Your task to perform on an android device: open app "Roku - Official Remote Control" (install if not already installed) Image 0: 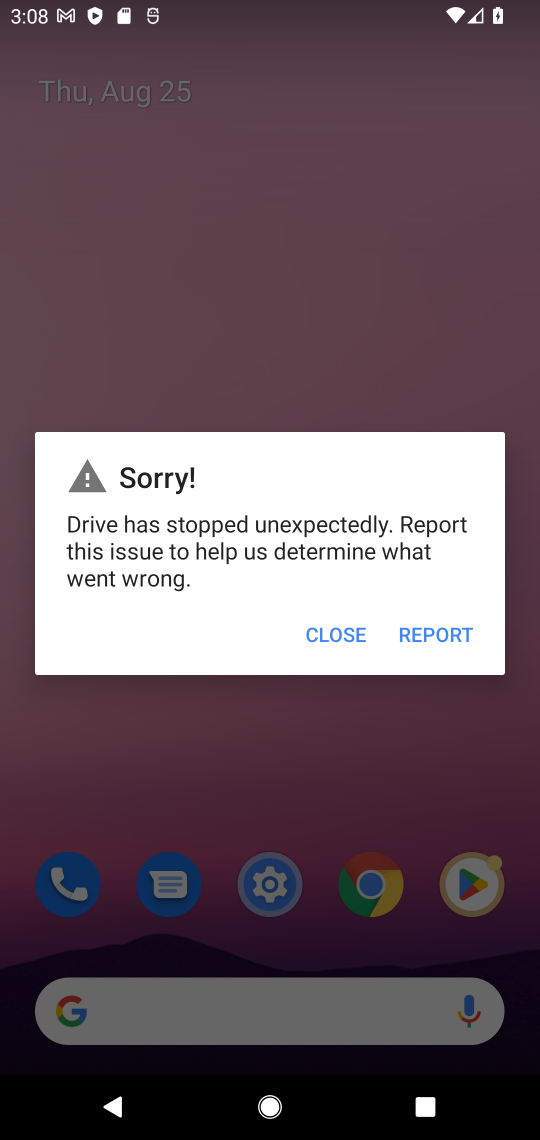
Step 0: press home button
Your task to perform on an android device: open app "Roku - Official Remote Control" (install if not already installed) Image 1: 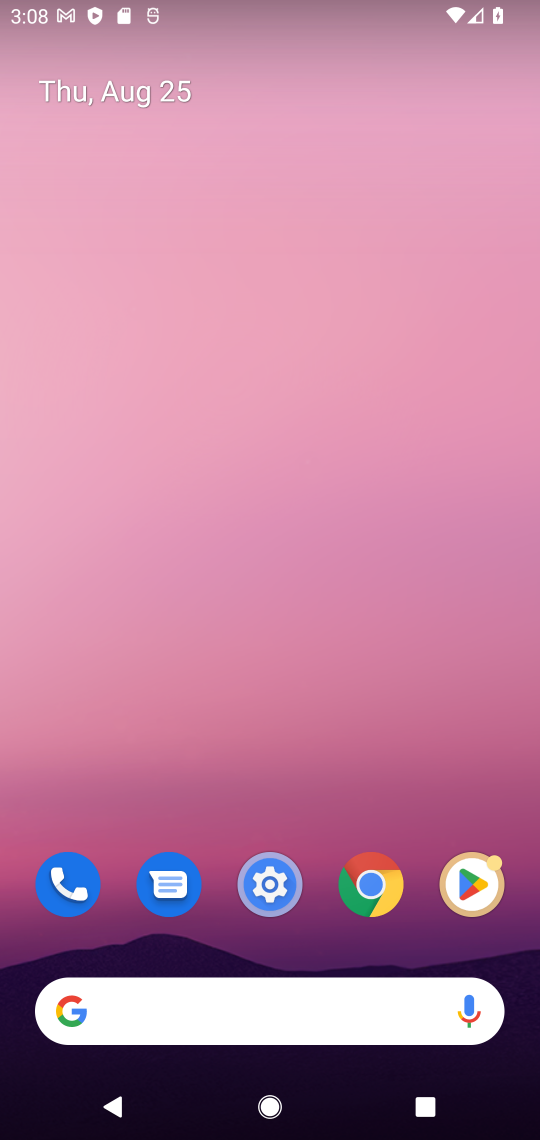
Step 1: drag from (296, 706) to (306, 5)
Your task to perform on an android device: open app "Roku - Official Remote Control" (install if not already installed) Image 2: 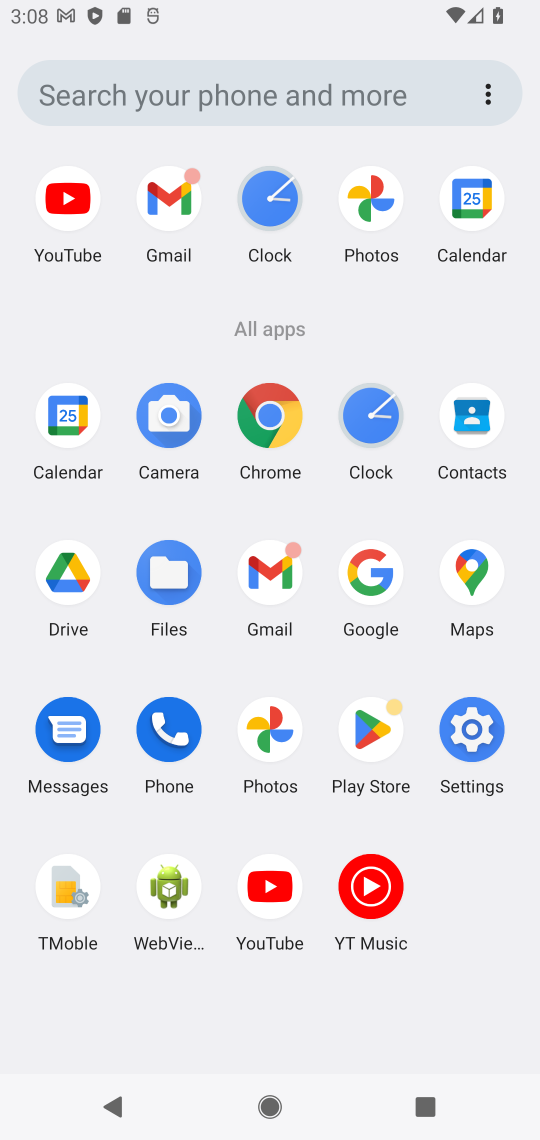
Step 2: click (374, 730)
Your task to perform on an android device: open app "Roku - Official Remote Control" (install if not already installed) Image 3: 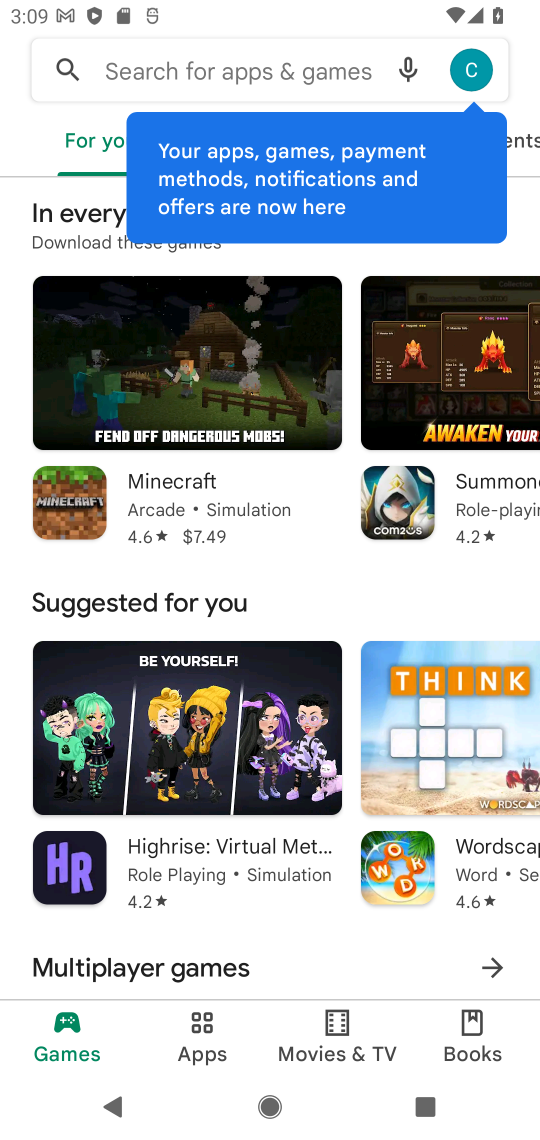
Step 3: click (230, 72)
Your task to perform on an android device: open app "Roku - Official Remote Control" (install if not already installed) Image 4: 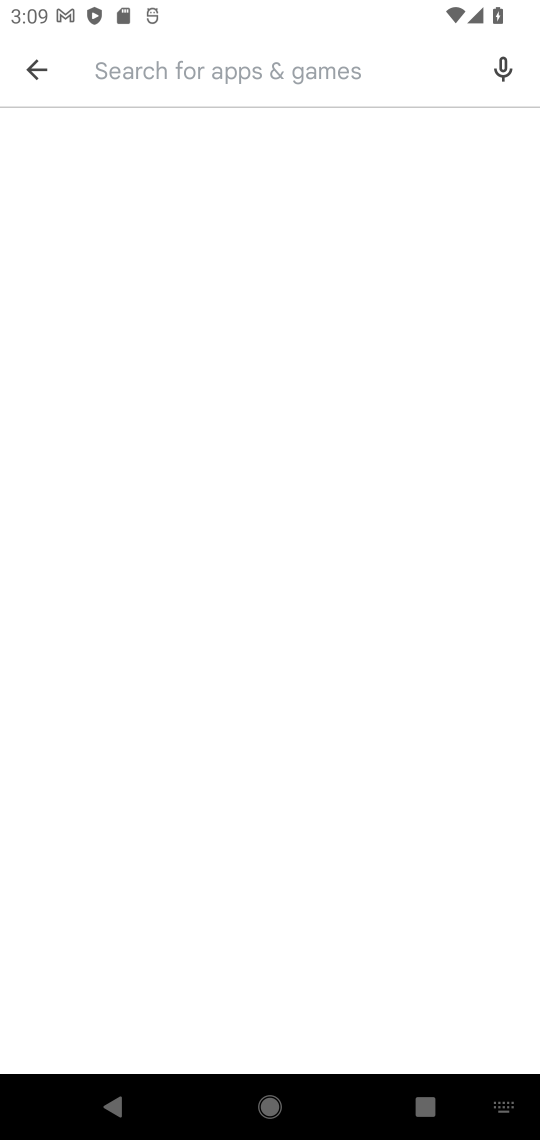
Step 4: type "Roku"
Your task to perform on an android device: open app "Roku - Official Remote Control" (install if not already installed) Image 5: 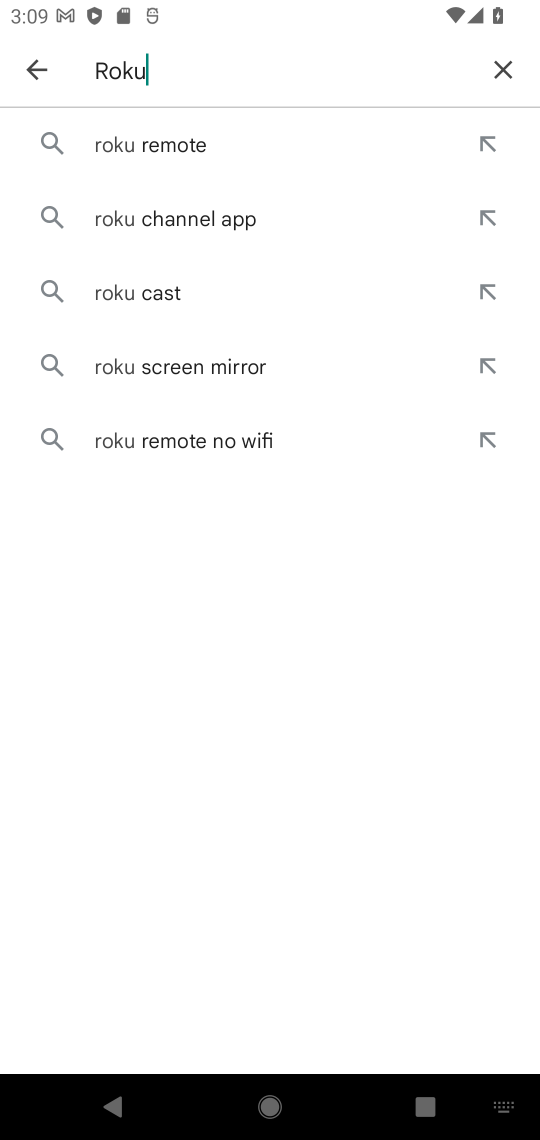
Step 5: type "- Official Remote"
Your task to perform on an android device: open app "Roku - Official Remote Control" (install if not already installed) Image 6: 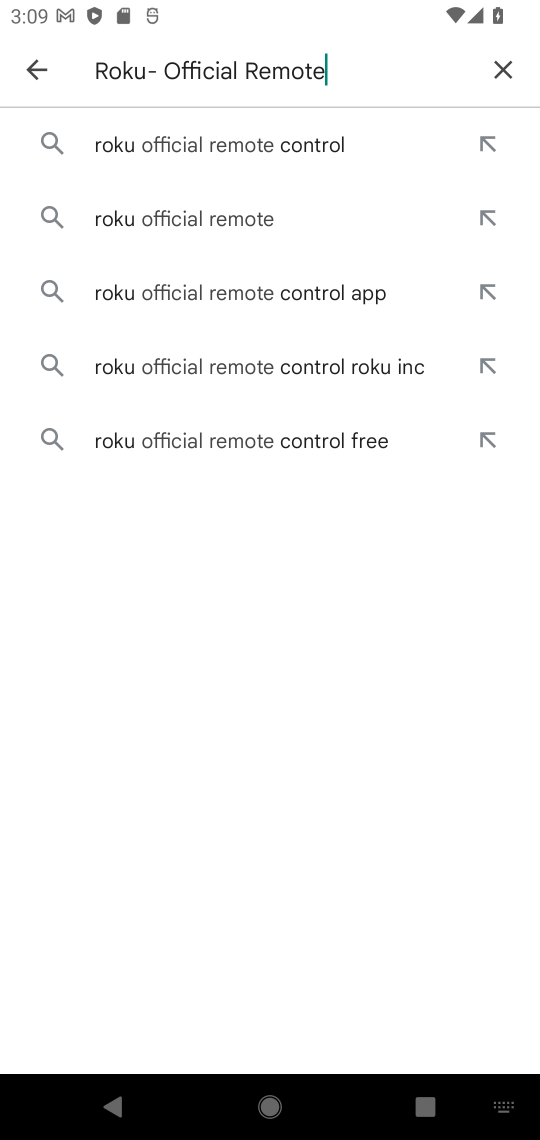
Step 6: click (134, 143)
Your task to perform on an android device: open app "Roku - Official Remote Control" (install if not already installed) Image 7: 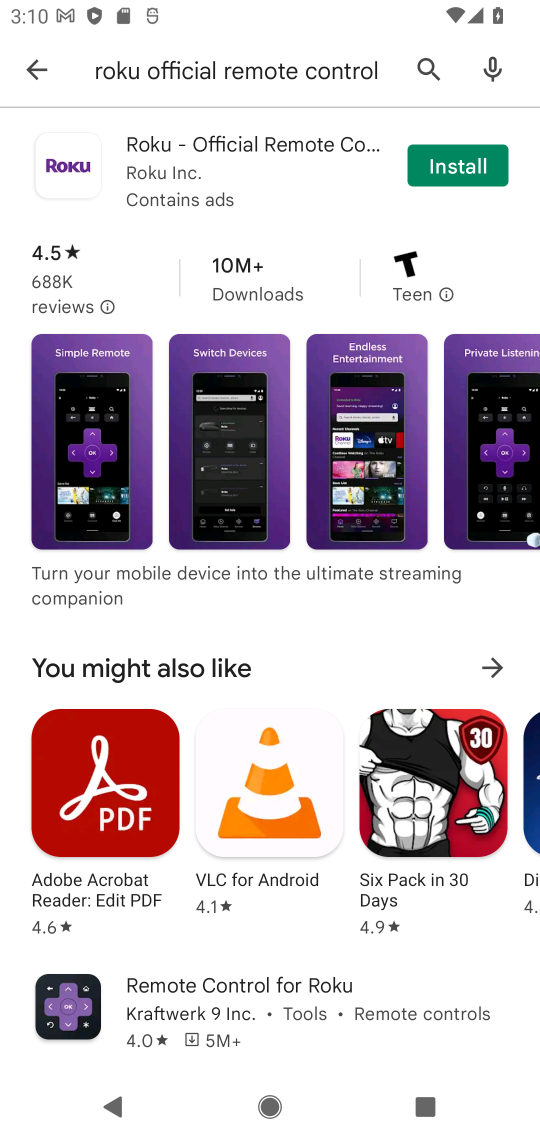
Step 7: click (461, 176)
Your task to perform on an android device: open app "Roku - Official Remote Control" (install if not already installed) Image 8: 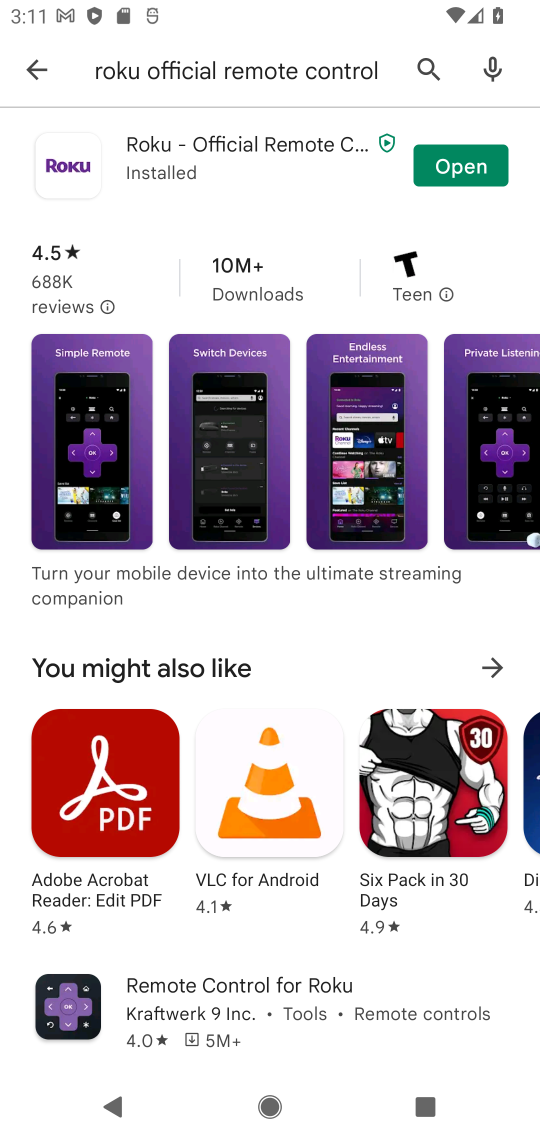
Step 8: click (459, 157)
Your task to perform on an android device: open app "Roku - Official Remote Control" (install if not already installed) Image 9: 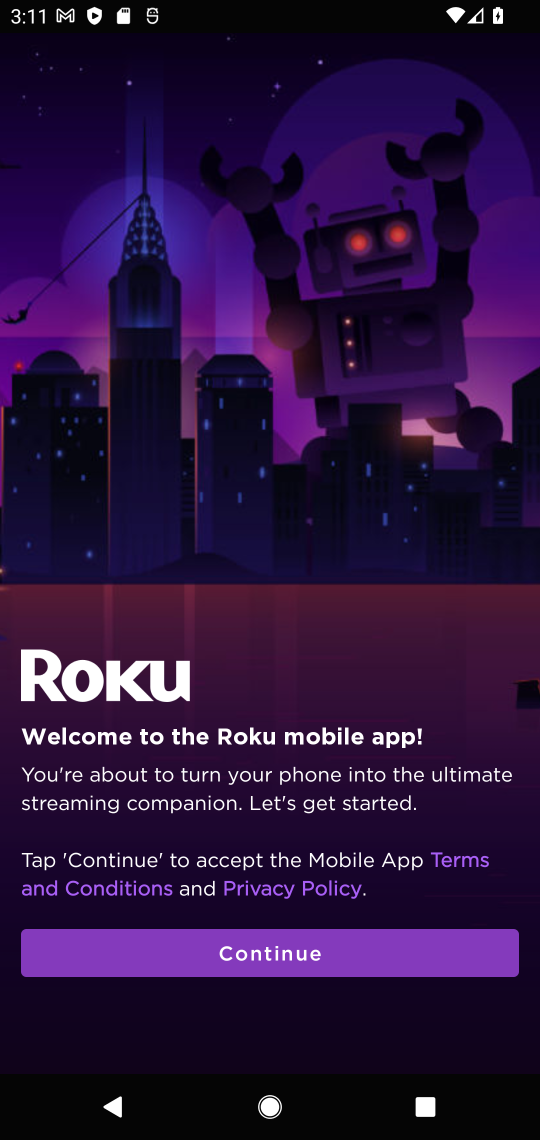
Step 9: task complete